Your task to perform on an android device: Set the phone to "Do not disturb". Image 0: 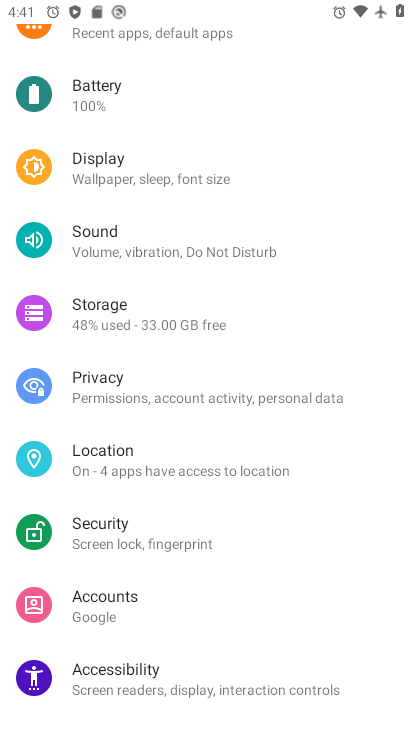
Step 0: click (201, 247)
Your task to perform on an android device: Set the phone to "Do not disturb". Image 1: 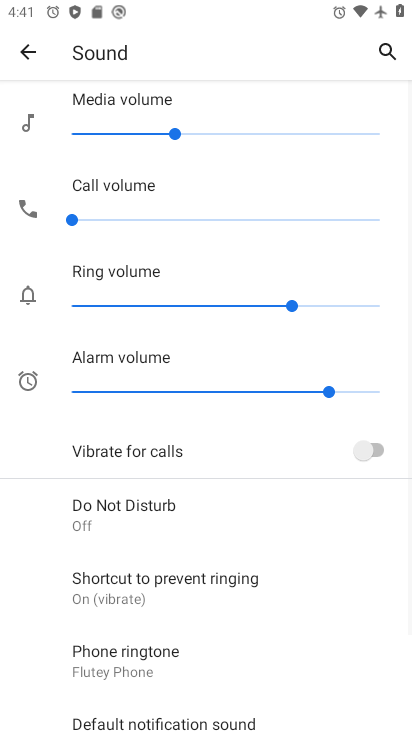
Step 1: click (168, 519)
Your task to perform on an android device: Set the phone to "Do not disturb". Image 2: 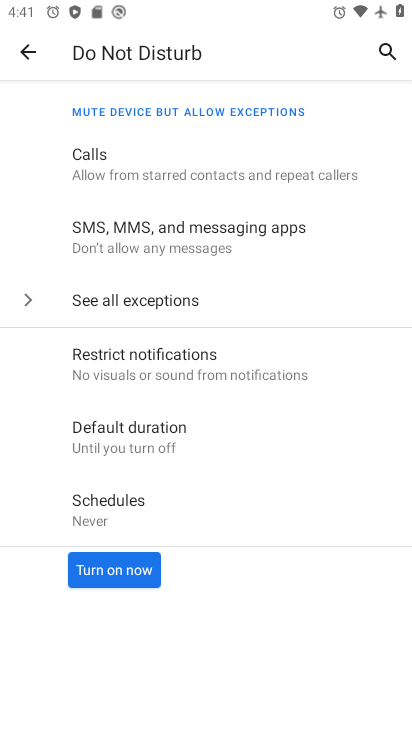
Step 2: click (130, 562)
Your task to perform on an android device: Set the phone to "Do not disturb". Image 3: 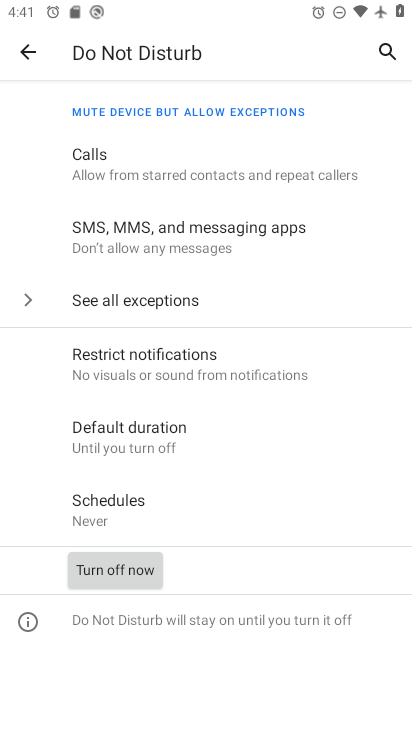
Step 3: task complete